Your task to perform on an android device: Toggle the flashlight Image 0: 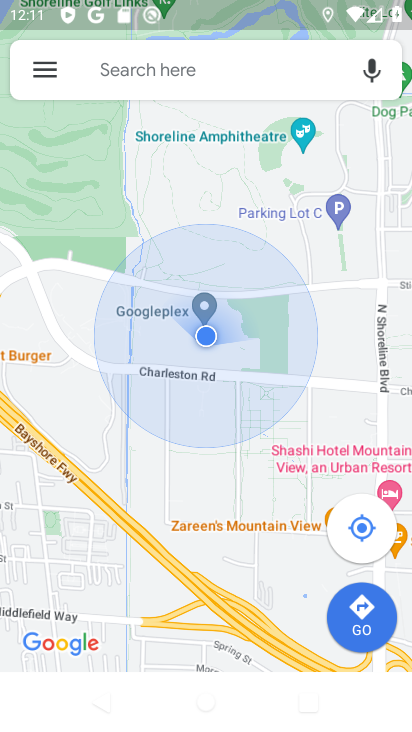
Step 0: press back button
Your task to perform on an android device: Toggle the flashlight Image 1: 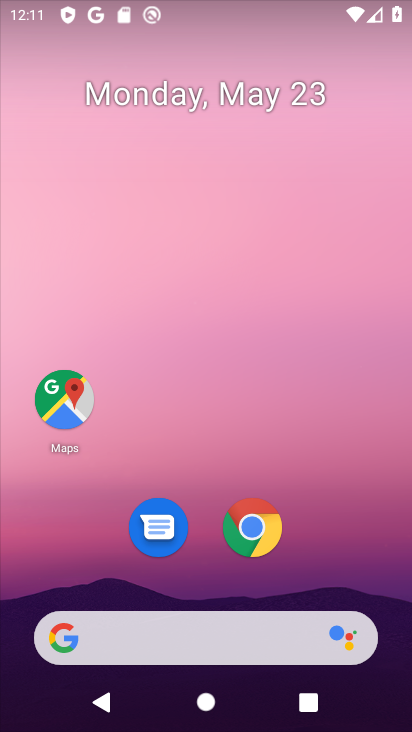
Step 1: drag from (186, 640) to (200, 43)
Your task to perform on an android device: Toggle the flashlight Image 2: 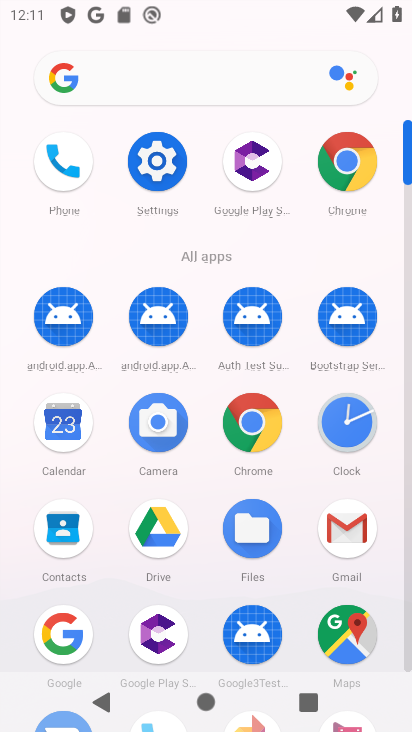
Step 2: drag from (221, 718) to (222, 62)
Your task to perform on an android device: Toggle the flashlight Image 3: 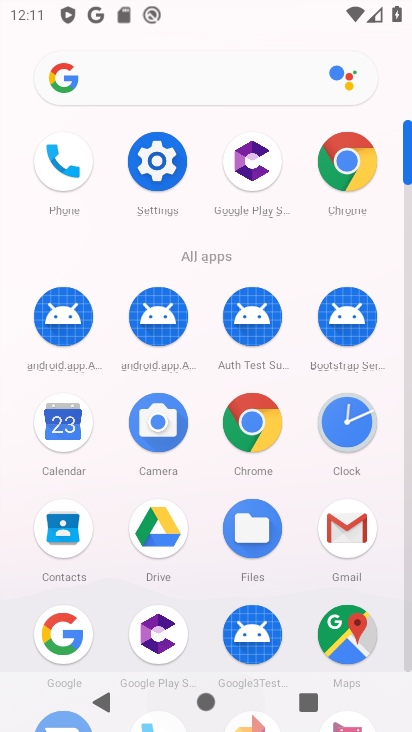
Step 3: drag from (319, 661) to (257, 4)
Your task to perform on an android device: Toggle the flashlight Image 4: 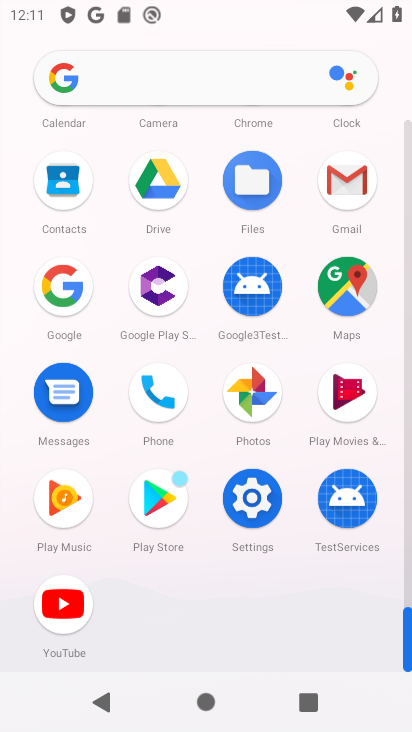
Step 4: drag from (201, 585) to (200, 22)
Your task to perform on an android device: Toggle the flashlight Image 5: 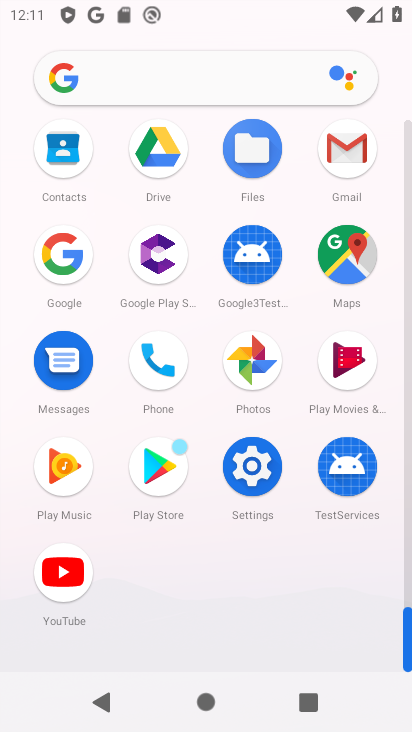
Step 5: drag from (208, 471) to (192, 36)
Your task to perform on an android device: Toggle the flashlight Image 6: 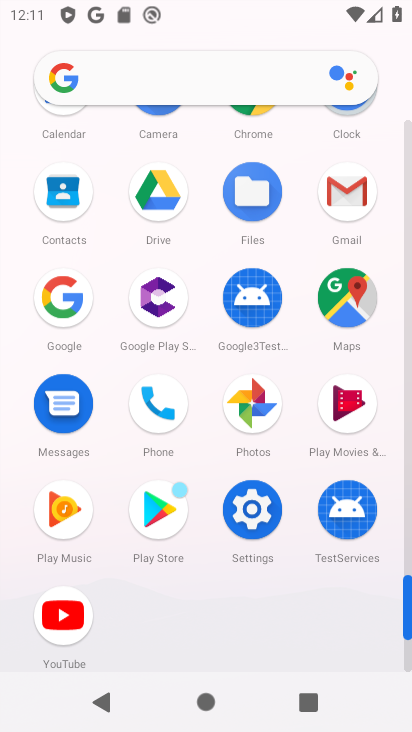
Step 6: drag from (164, 299) to (158, 16)
Your task to perform on an android device: Toggle the flashlight Image 7: 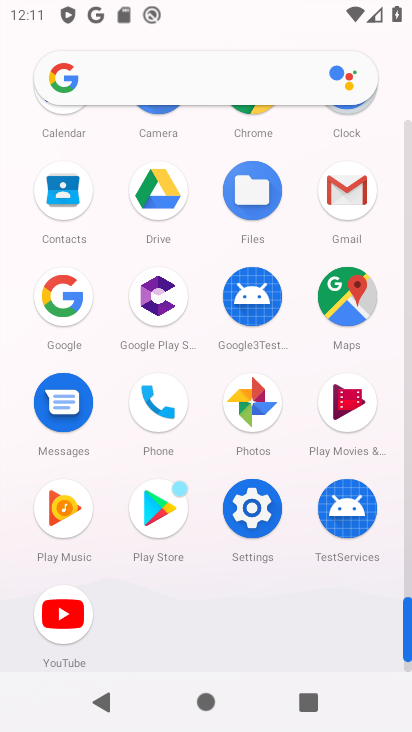
Step 7: drag from (133, 395) to (163, 40)
Your task to perform on an android device: Toggle the flashlight Image 8: 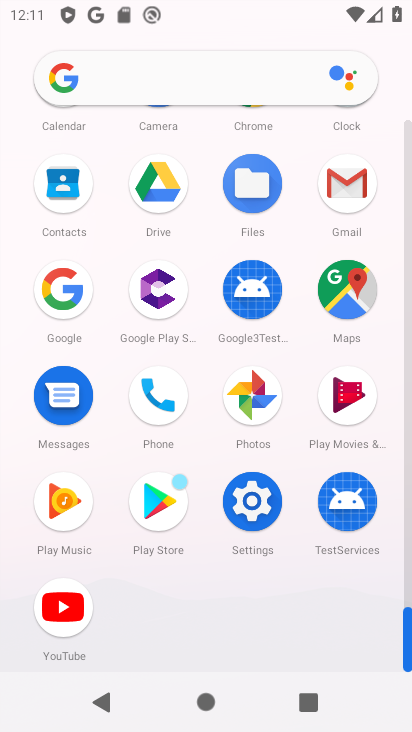
Step 8: click (134, 162)
Your task to perform on an android device: Toggle the flashlight Image 9: 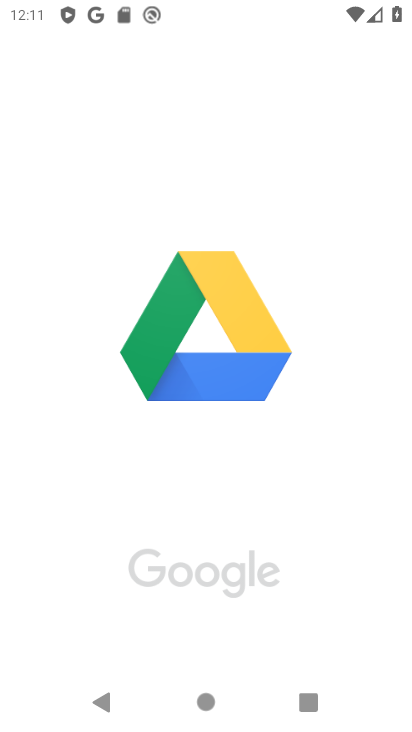
Step 9: task complete